Your task to perform on an android device: add a contact in the contacts app Image 0: 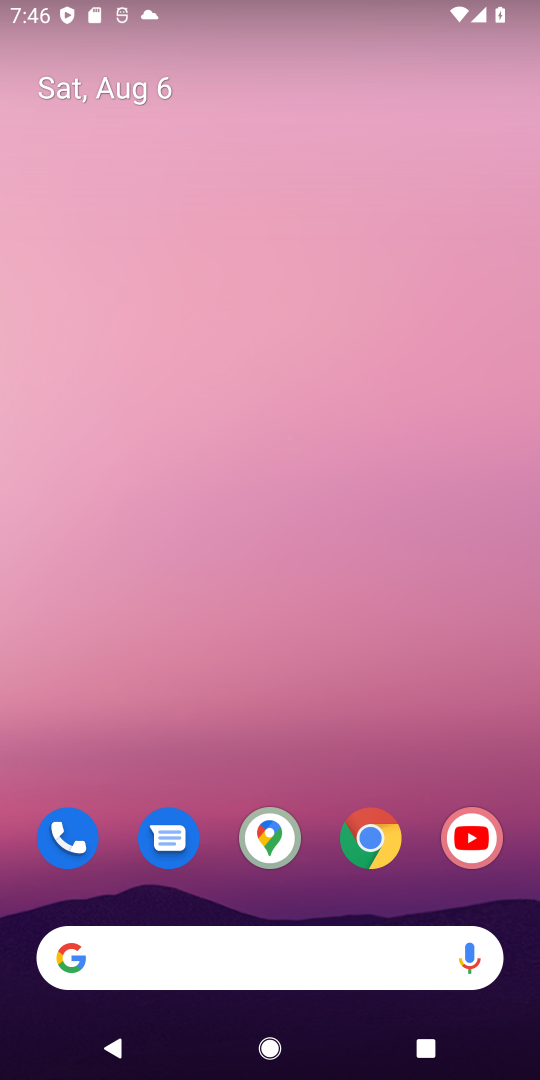
Step 0: drag from (229, 638) to (229, 212)
Your task to perform on an android device: add a contact in the contacts app Image 1: 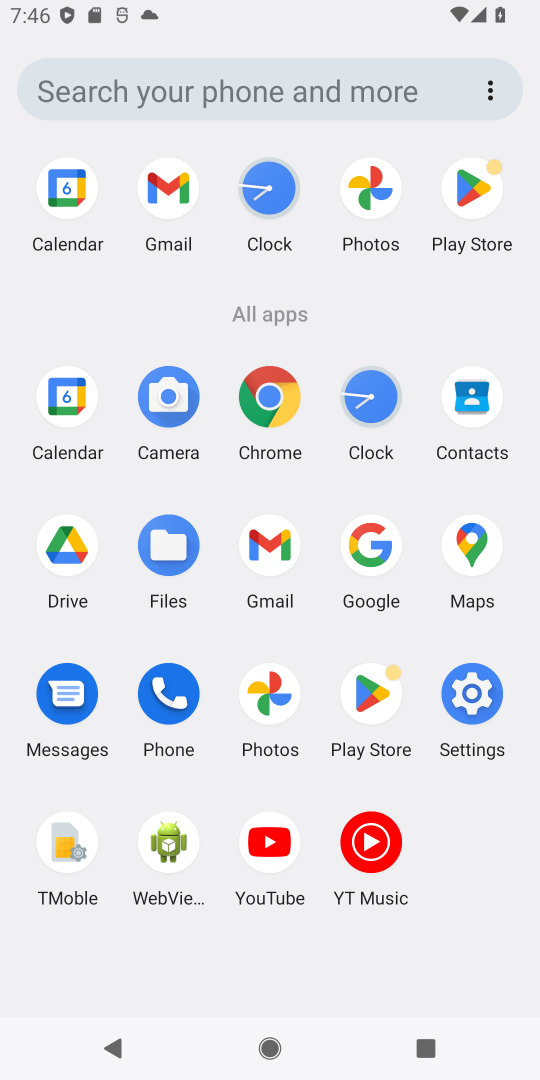
Step 1: click (445, 452)
Your task to perform on an android device: add a contact in the contacts app Image 2: 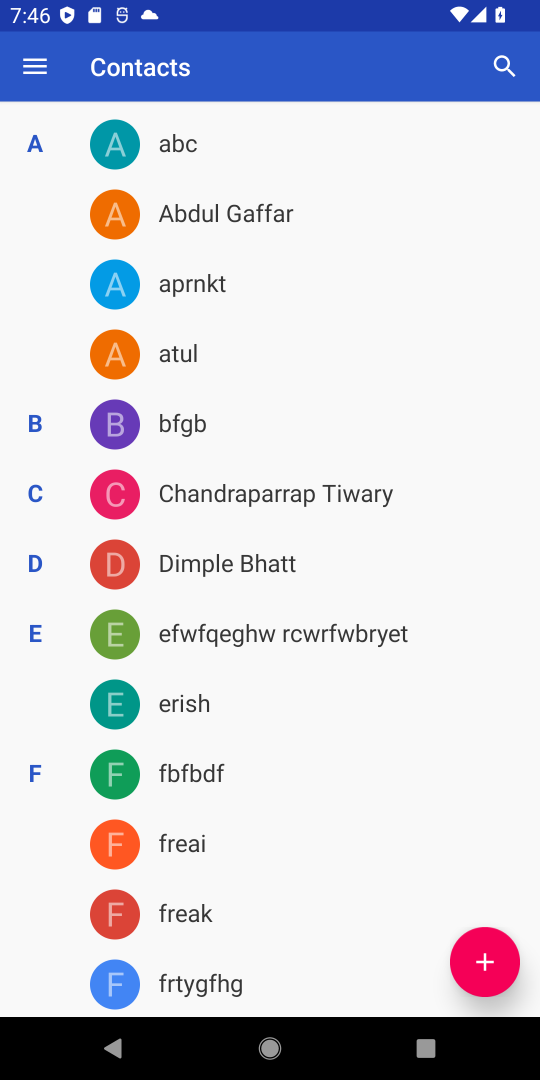
Step 2: click (474, 958)
Your task to perform on an android device: add a contact in the contacts app Image 3: 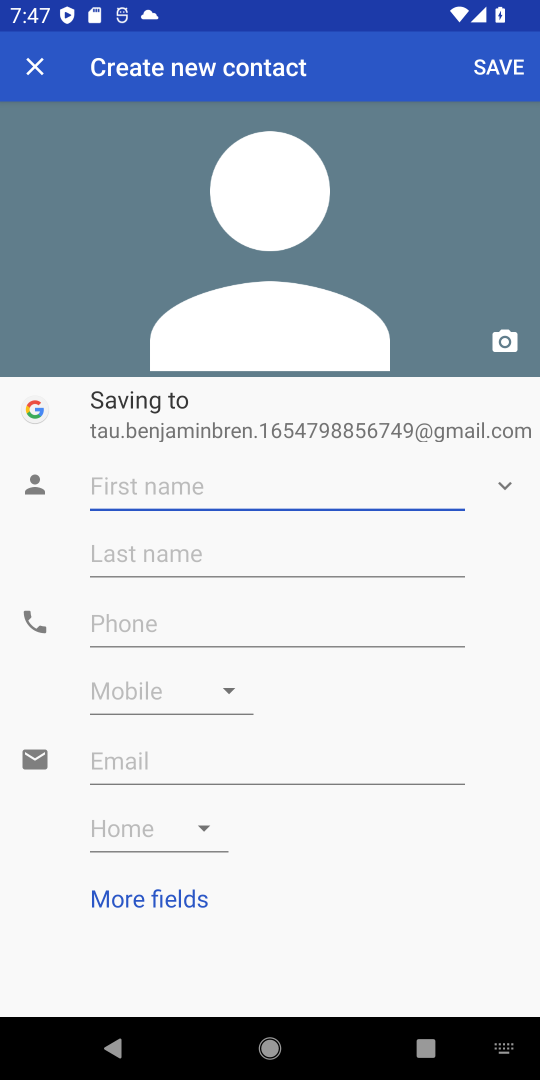
Step 3: type "Sanjay"
Your task to perform on an android device: add a contact in the contacts app Image 4: 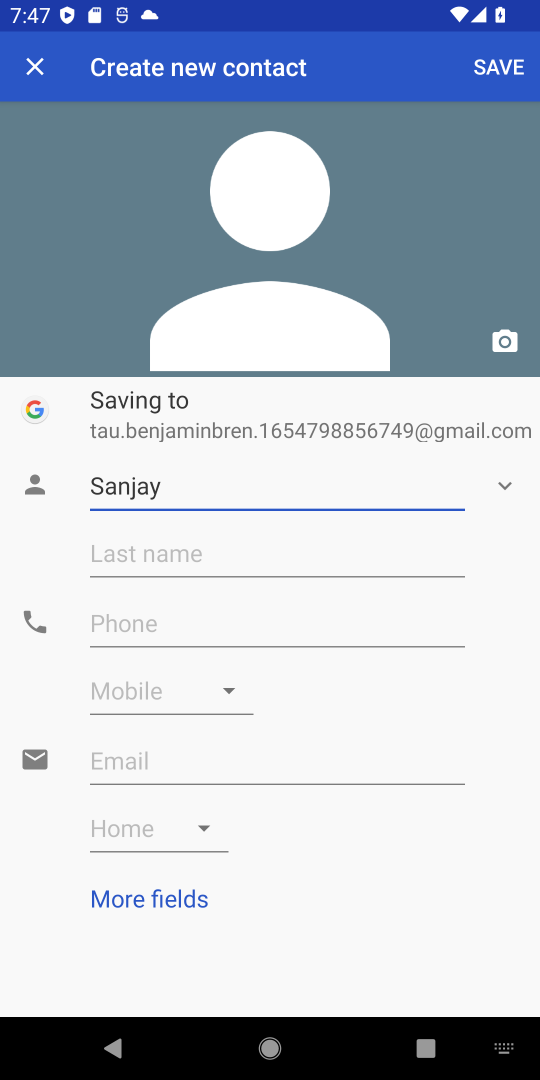
Step 4: click (177, 559)
Your task to perform on an android device: add a contact in the contacts app Image 5: 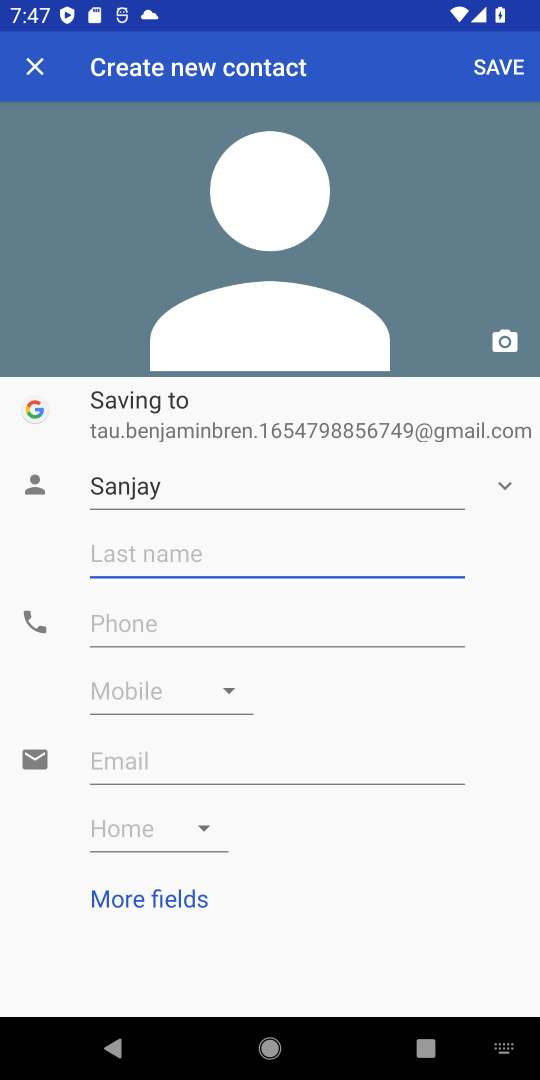
Step 5: type "Dare"
Your task to perform on an android device: add a contact in the contacts app Image 6: 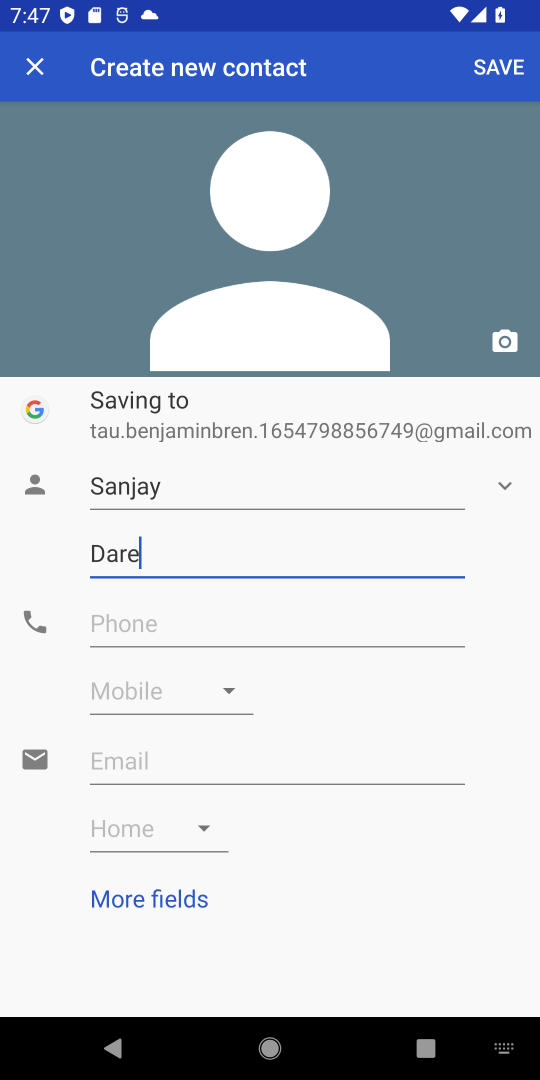
Step 6: click (168, 625)
Your task to perform on an android device: add a contact in the contacts app Image 7: 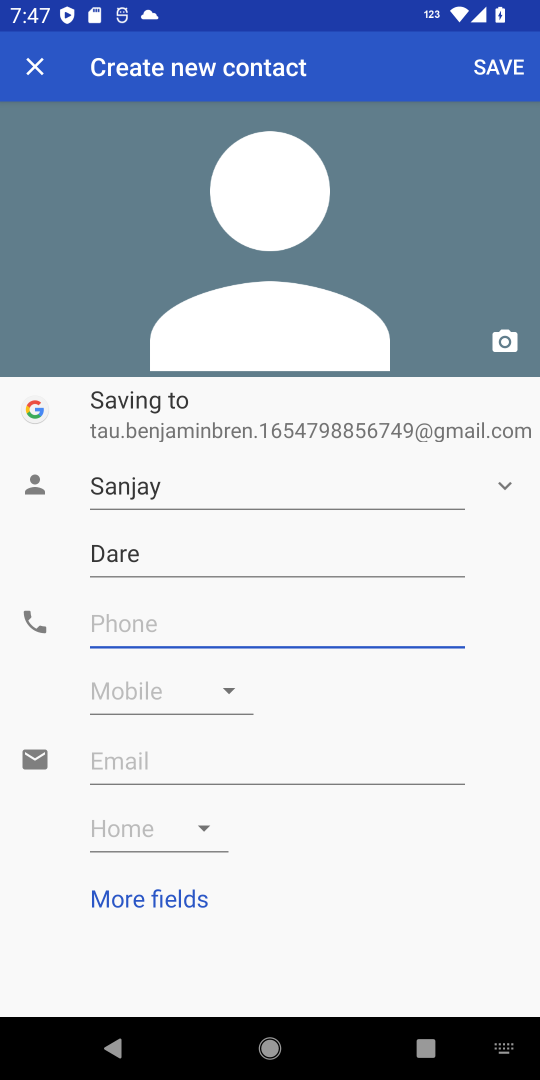
Step 7: type "7890098766"
Your task to perform on an android device: add a contact in the contacts app Image 8: 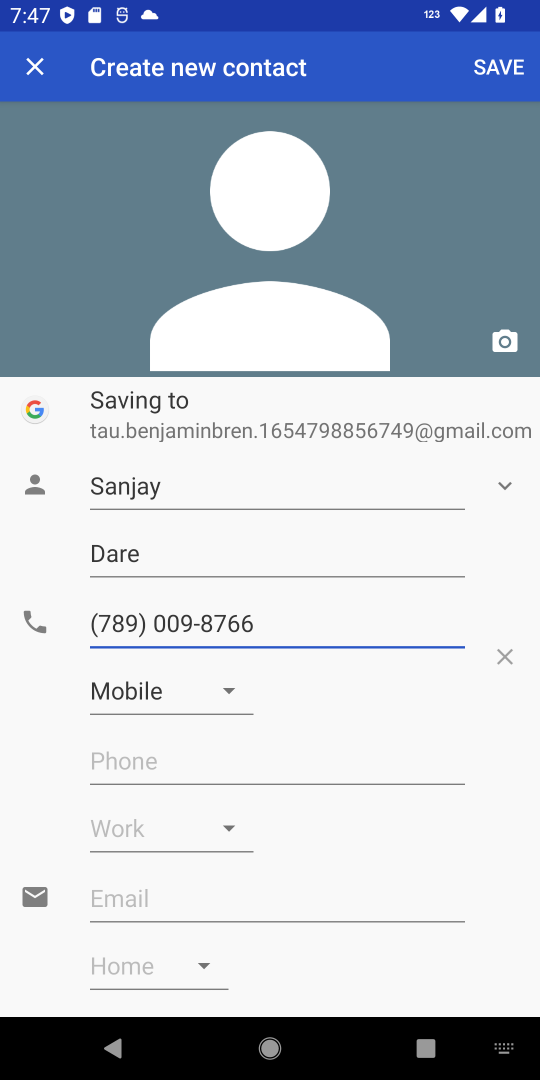
Step 8: click (505, 78)
Your task to perform on an android device: add a contact in the contacts app Image 9: 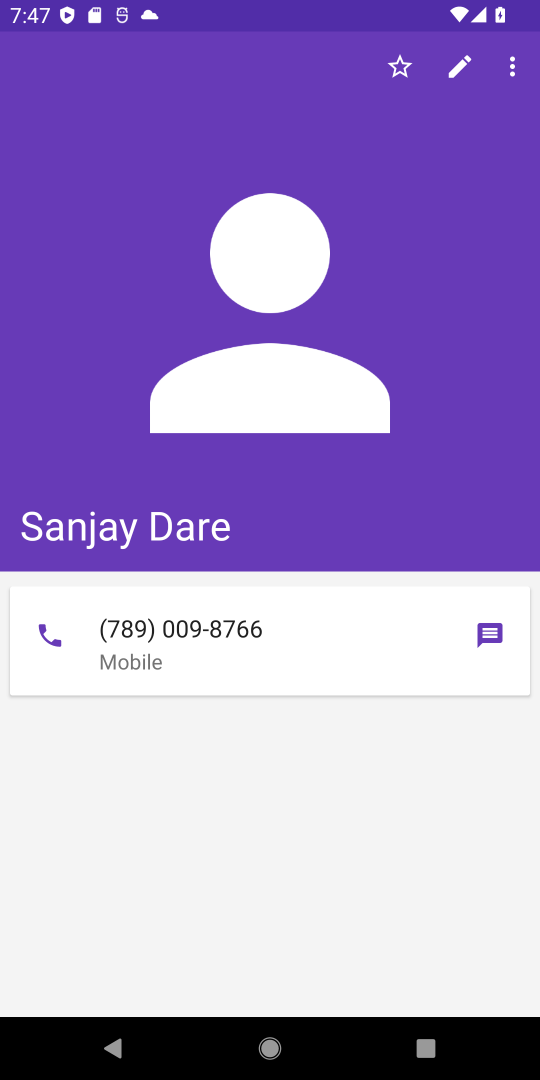
Step 9: task complete